Your task to perform on an android device: Go to battery settings Image 0: 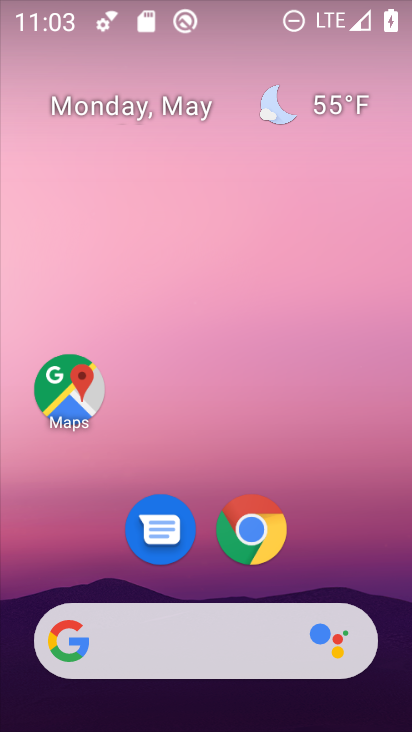
Step 0: drag from (242, 655) to (255, 158)
Your task to perform on an android device: Go to battery settings Image 1: 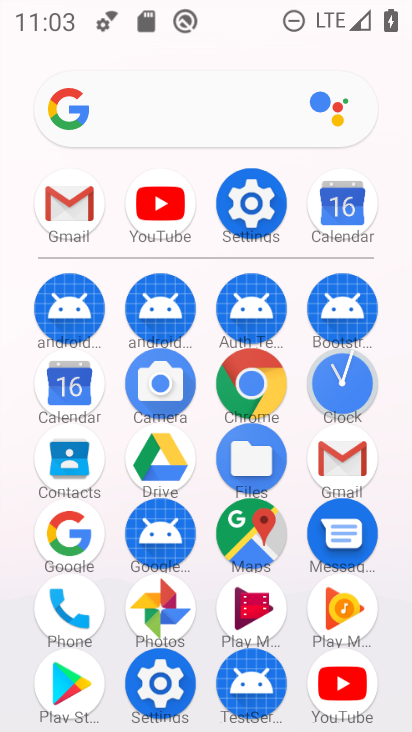
Step 1: click (263, 208)
Your task to perform on an android device: Go to battery settings Image 2: 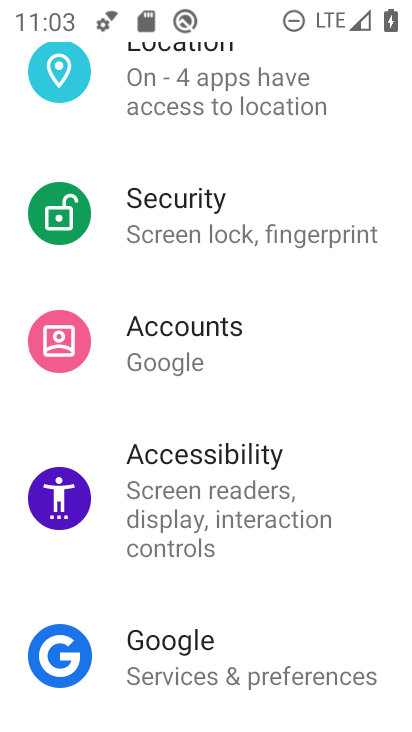
Step 2: drag from (233, 234) to (225, 650)
Your task to perform on an android device: Go to battery settings Image 3: 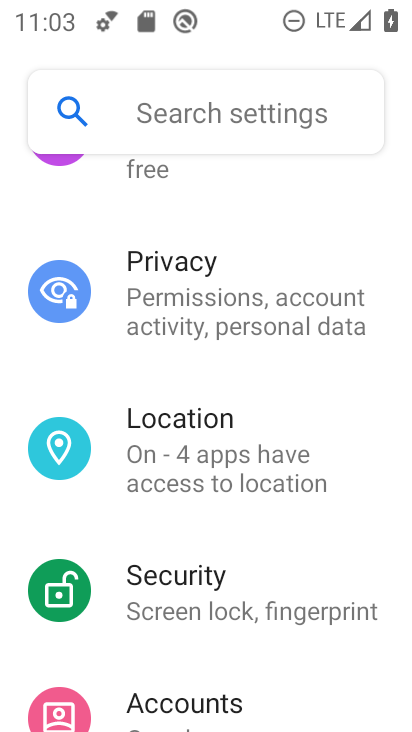
Step 3: drag from (230, 222) to (227, 520)
Your task to perform on an android device: Go to battery settings Image 4: 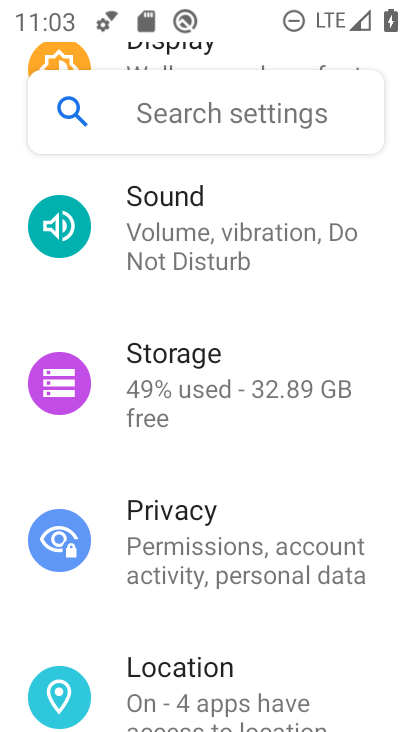
Step 4: drag from (147, 244) to (140, 582)
Your task to perform on an android device: Go to battery settings Image 5: 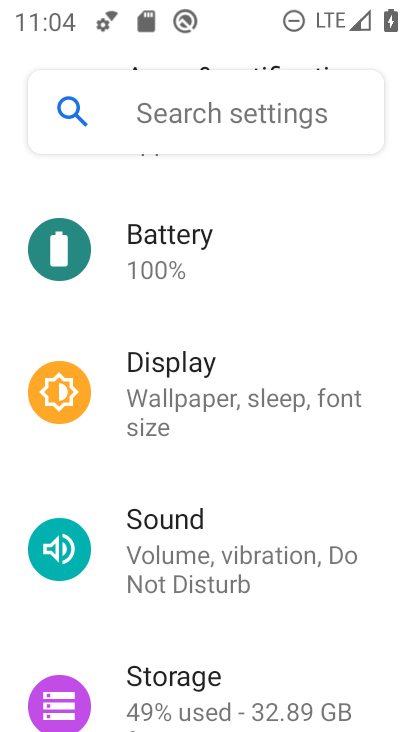
Step 5: click (124, 239)
Your task to perform on an android device: Go to battery settings Image 6: 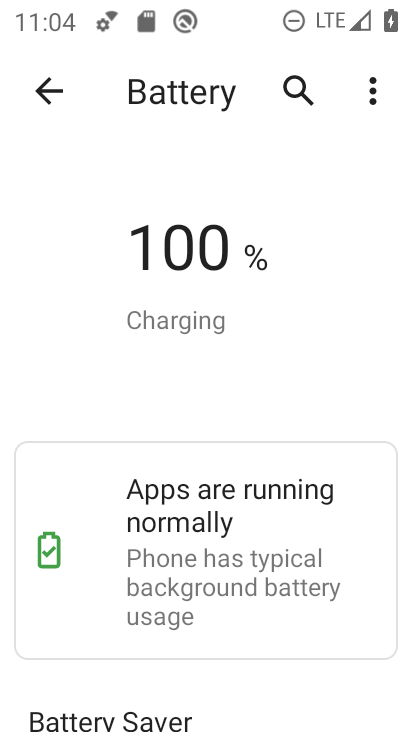
Step 6: task complete